Your task to perform on an android device: Go to Wikipedia Image 0: 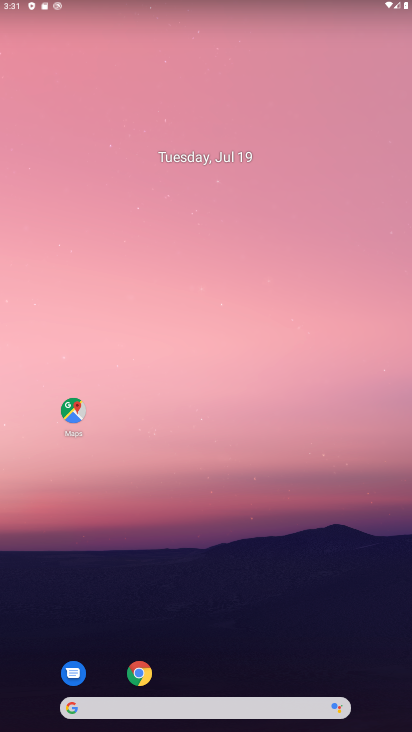
Step 0: click (136, 671)
Your task to perform on an android device: Go to Wikipedia Image 1: 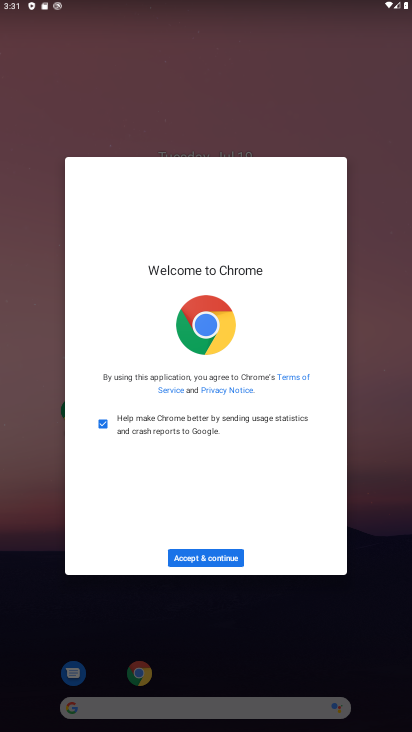
Step 1: click (186, 558)
Your task to perform on an android device: Go to Wikipedia Image 2: 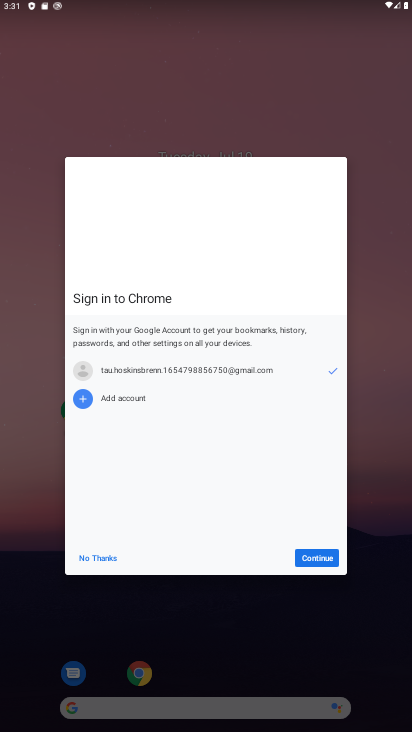
Step 2: click (305, 558)
Your task to perform on an android device: Go to Wikipedia Image 3: 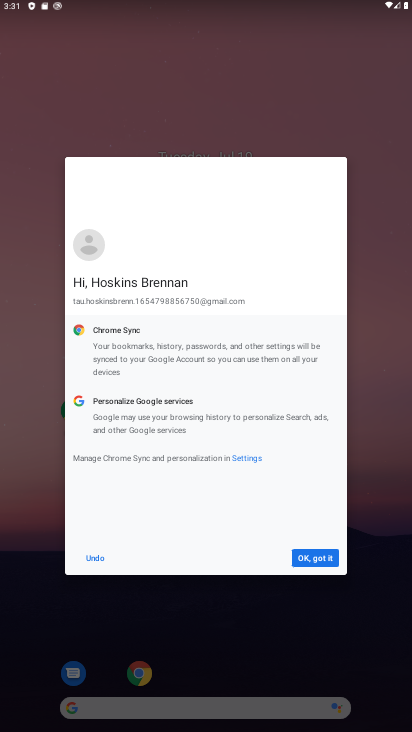
Step 3: click (306, 563)
Your task to perform on an android device: Go to Wikipedia Image 4: 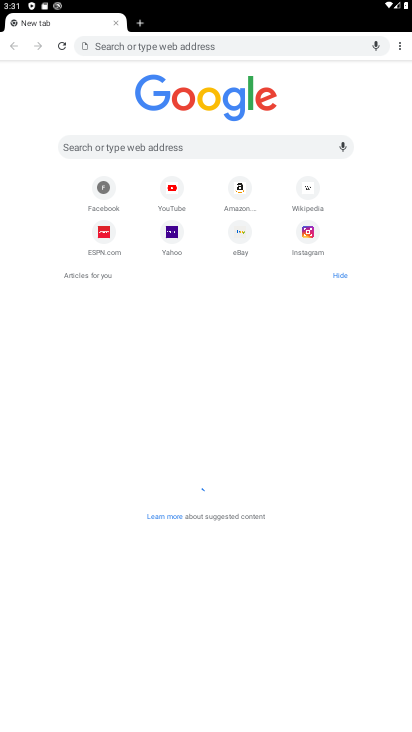
Step 4: click (403, 40)
Your task to perform on an android device: Go to Wikipedia Image 5: 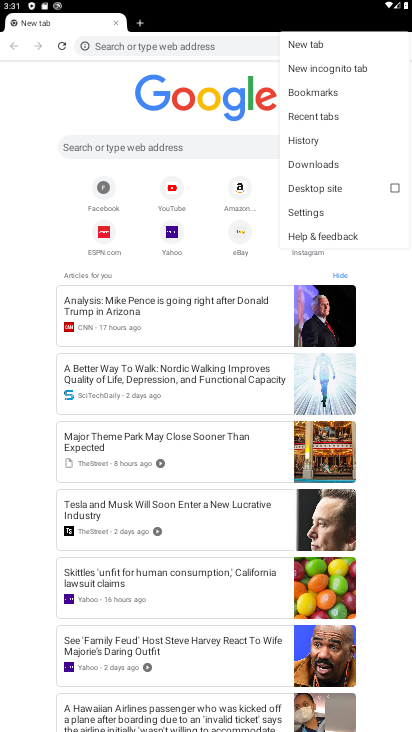
Step 5: click (203, 270)
Your task to perform on an android device: Go to Wikipedia Image 6: 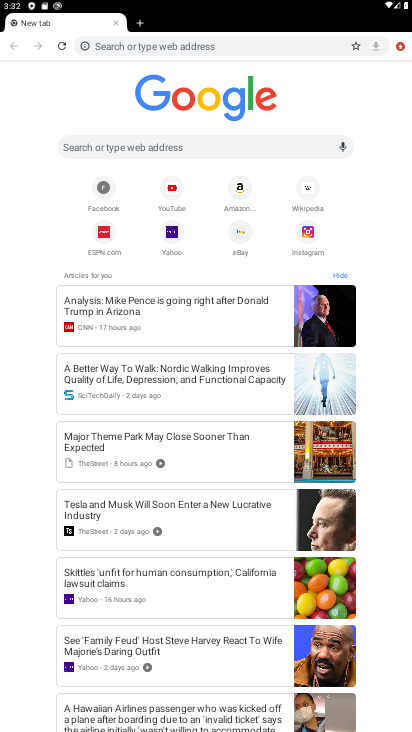
Step 6: click (309, 187)
Your task to perform on an android device: Go to Wikipedia Image 7: 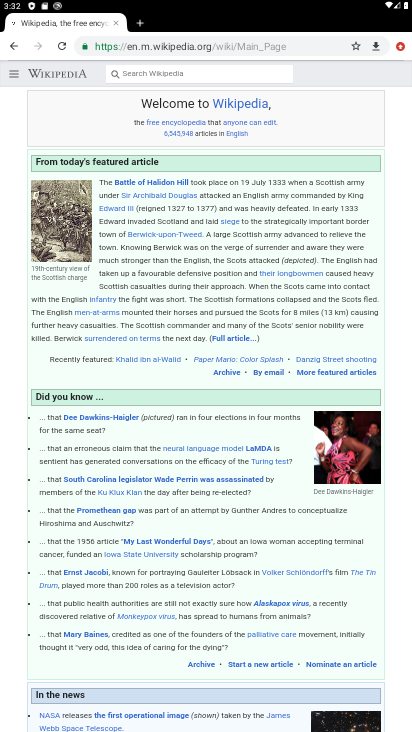
Step 7: task complete